Your task to perform on an android device: Search for Italian restaurants on Maps Image 0: 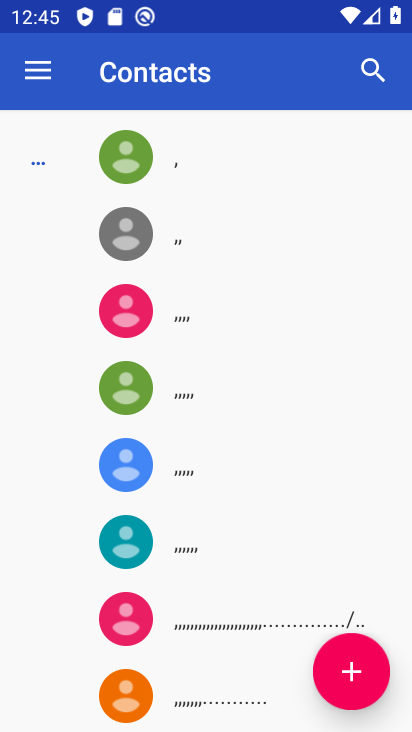
Step 0: press home button
Your task to perform on an android device: Search for Italian restaurants on Maps Image 1: 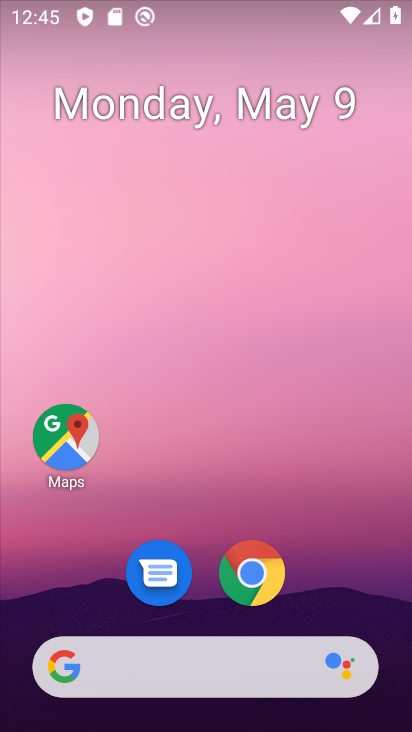
Step 1: click (72, 435)
Your task to perform on an android device: Search for Italian restaurants on Maps Image 2: 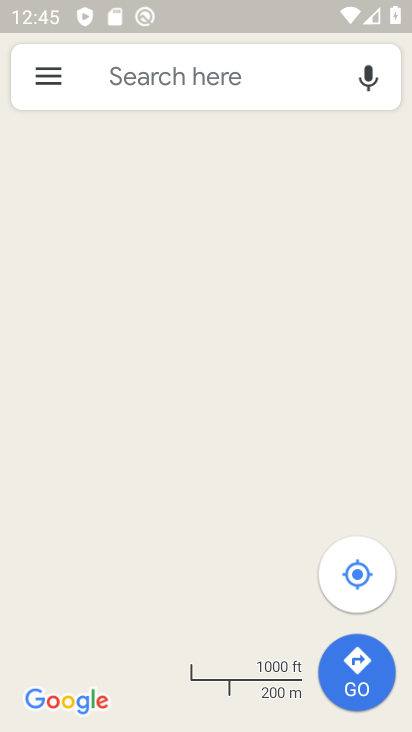
Step 2: click (119, 76)
Your task to perform on an android device: Search for Italian restaurants on Maps Image 3: 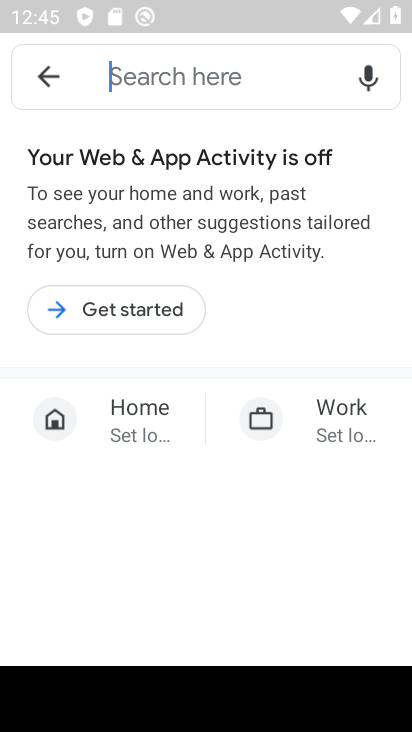
Step 3: drag from (193, 535) to (200, 199)
Your task to perform on an android device: Search for Italian restaurants on Maps Image 4: 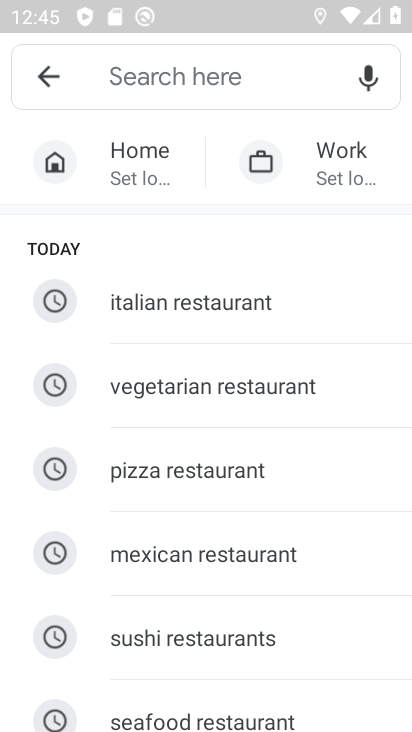
Step 4: click (166, 298)
Your task to perform on an android device: Search for Italian restaurants on Maps Image 5: 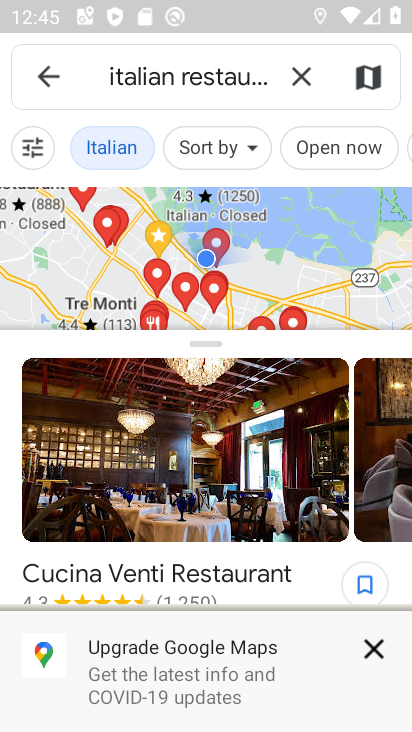
Step 5: task complete